Your task to perform on an android device: Check the news Image 0: 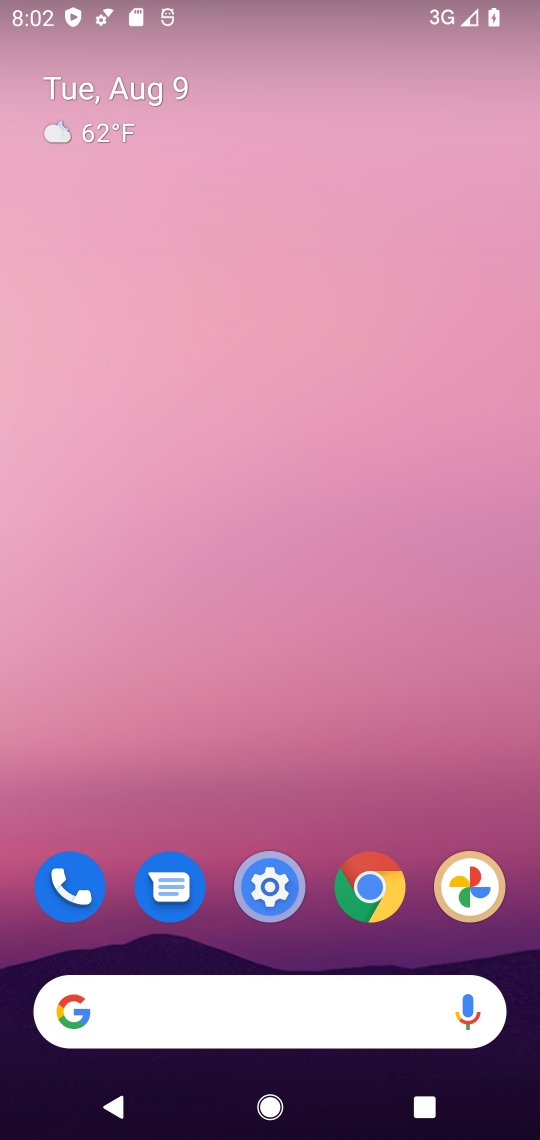
Step 0: click (321, 1017)
Your task to perform on an android device: Check the news Image 1: 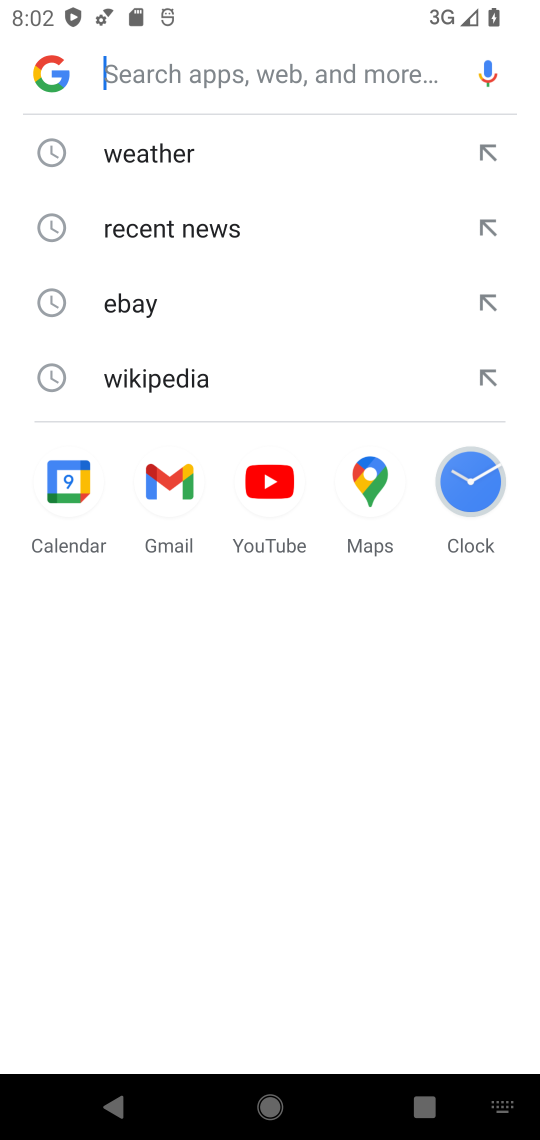
Step 1: click (182, 218)
Your task to perform on an android device: Check the news Image 2: 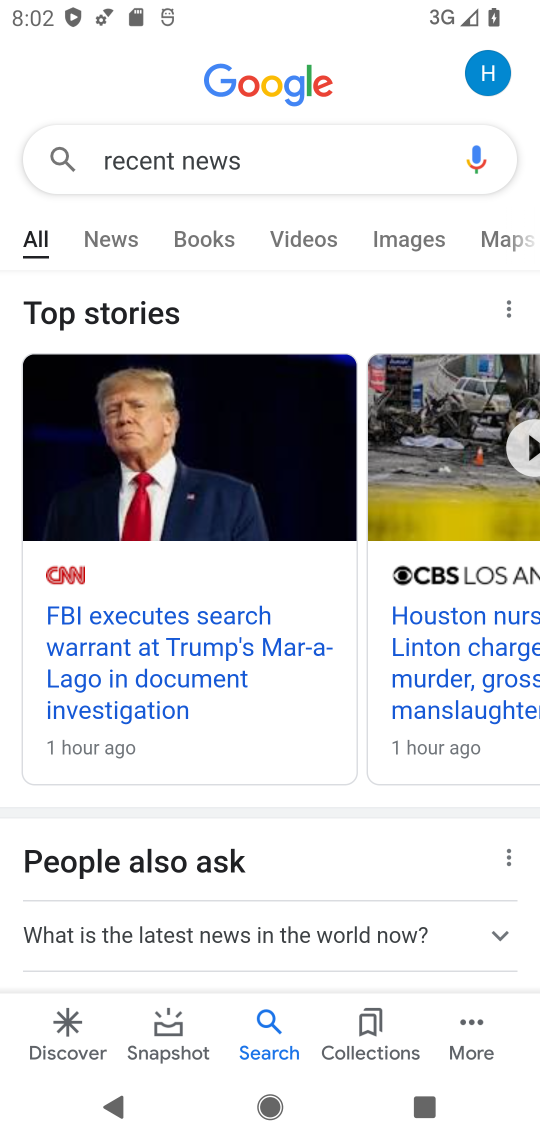
Step 2: click (115, 237)
Your task to perform on an android device: Check the news Image 3: 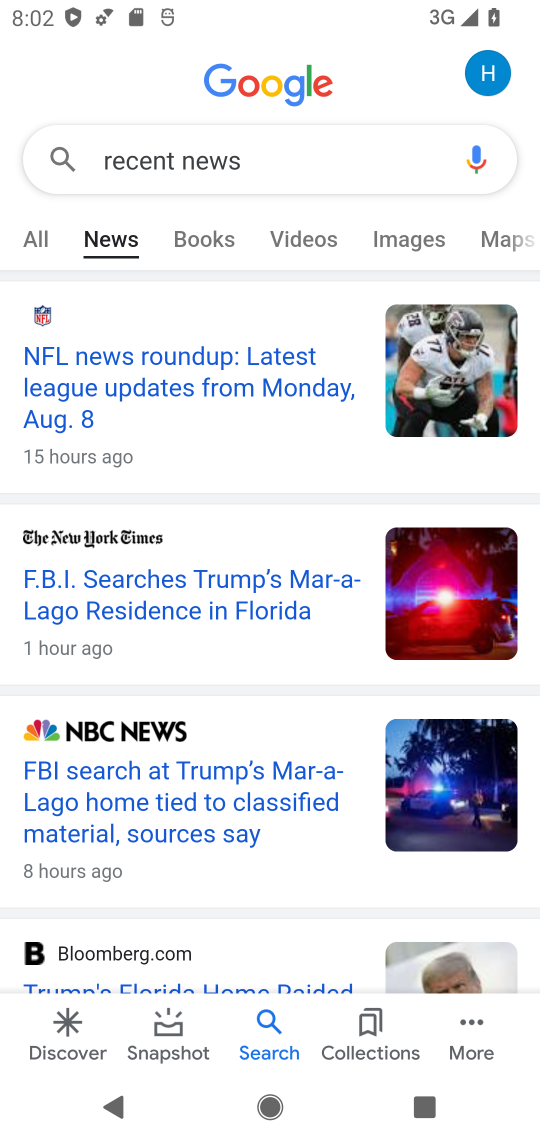
Step 3: task complete